Your task to perform on an android device: toggle improve location accuracy Image 0: 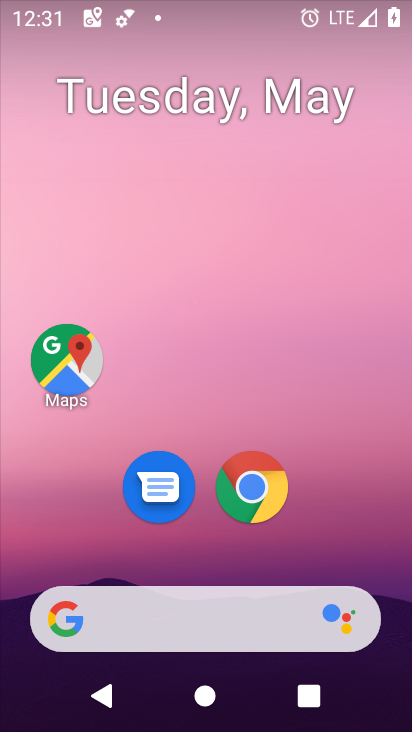
Step 0: drag from (135, 491) to (353, 126)
Your task to perform on an android device: toggle improve location accuracy Image 1: 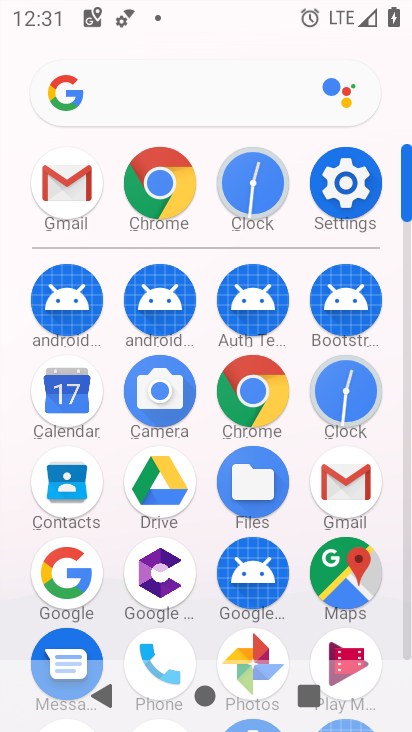
Step 1: click (359, 165)
Your task to perform on an android device: toggle improve location accuracy Image 2: 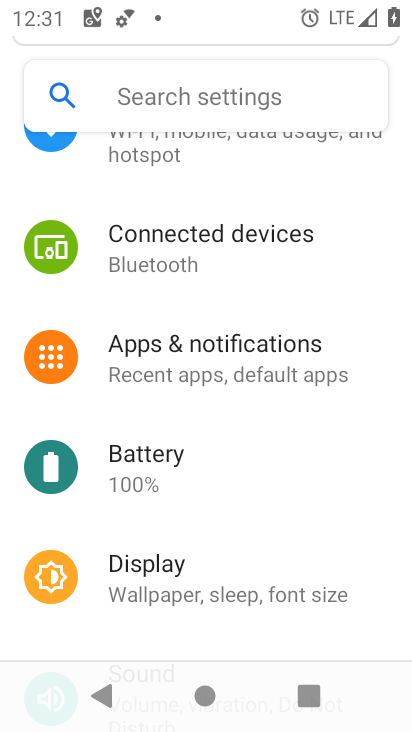
Step 2: drag from (16, 593) to (212, 220)
Your task to perform on an android device: toggle improve location accuracy Image 3: 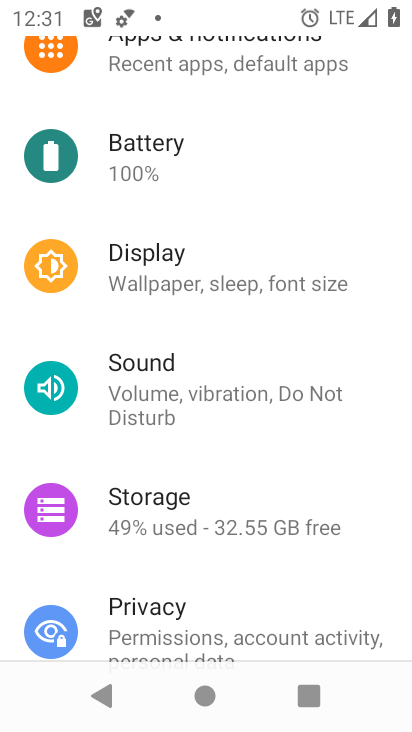
Step 3: drag from (47, 616) to (239, 220)
Your task to perform on an android device: toggle improve location accuracy Image 4: 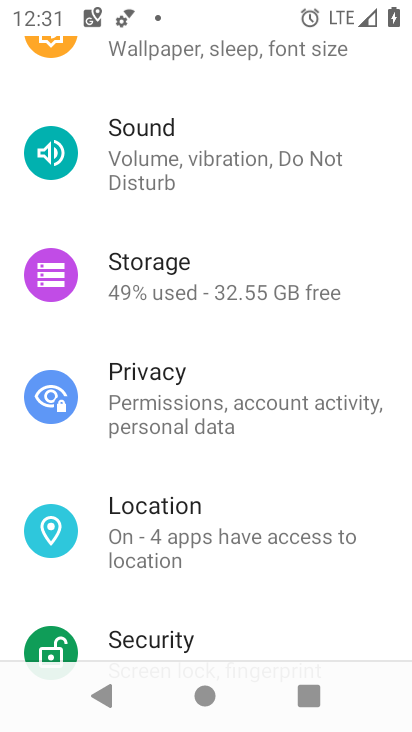
Step 4: click (154, 547)
Your task to perform on an android device: toggle improve location accuracy Image 5: 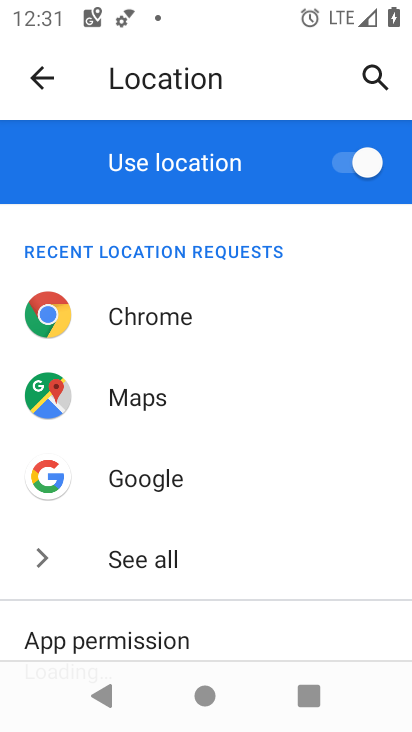
Step 5: drag from (10, 562) to (203, 203)
Your task to perform on an android device: toggle improve location accuracy Image 6: 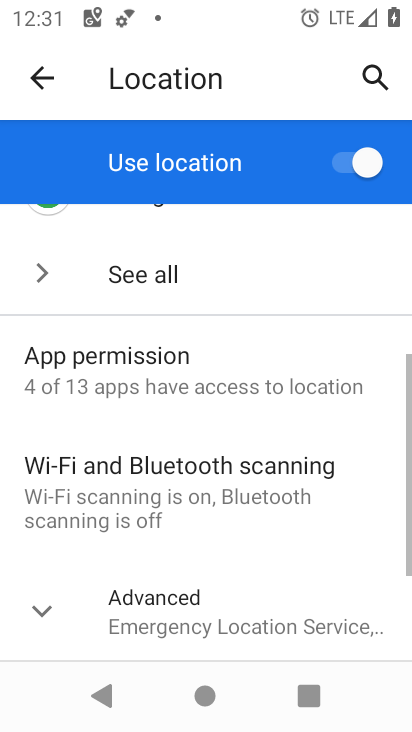
Step 6: click (212, 610)
Your task to perform on an android device: toggle improve location accuracy Image 7: 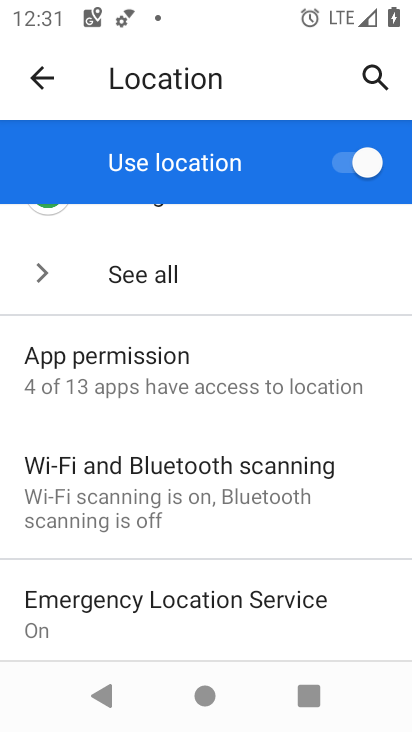
Step 7: drag from (20, 291) to (89, 146)
Your task to perform on an android device: toggle improve location accuracy Image 8: 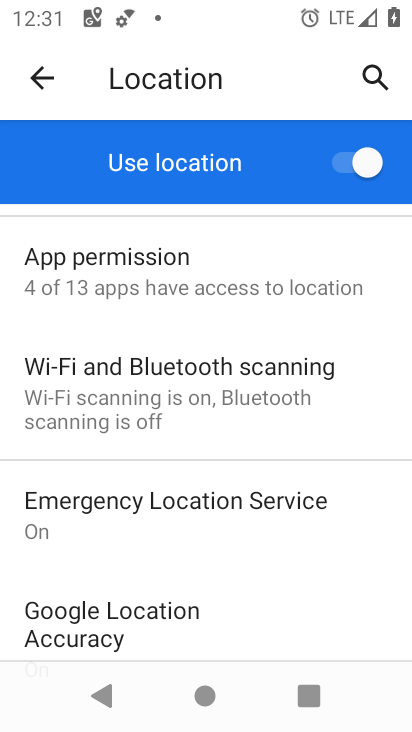
Step 8: drag from (19, 587) to (158, 305)
Your task to perform on an android device: toggle improve location accuracy Image 9: 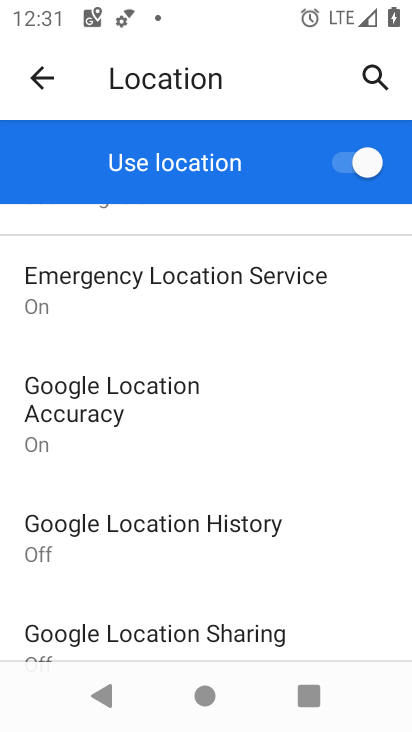
Step 9: click (118, 405)
Your task to perform on an android device: toggle improve location accuracy Image 10: 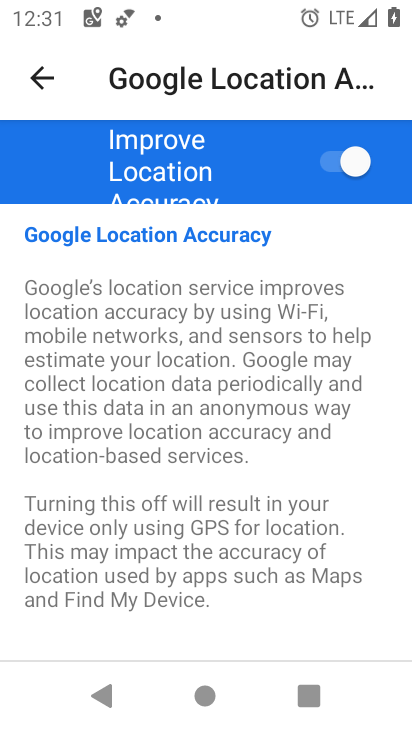
Step 10: click (370, 162)
Your task to perform on an android device: toggle improve location accuracy Image 11: 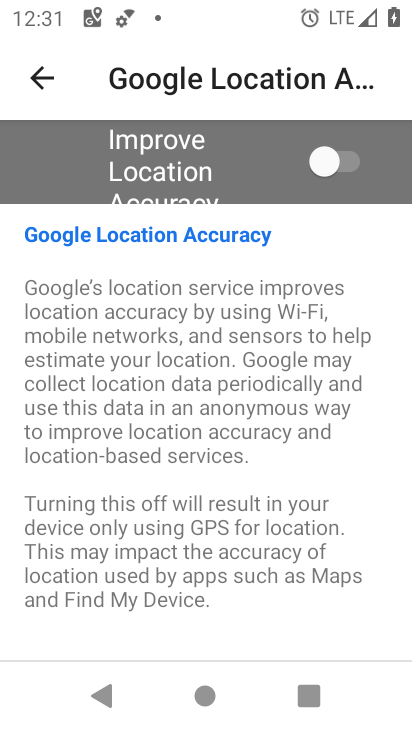
Step 11: task complete